Your task to perform on an android device: Add "acer predator" to the cart on bestbuy Image 0: 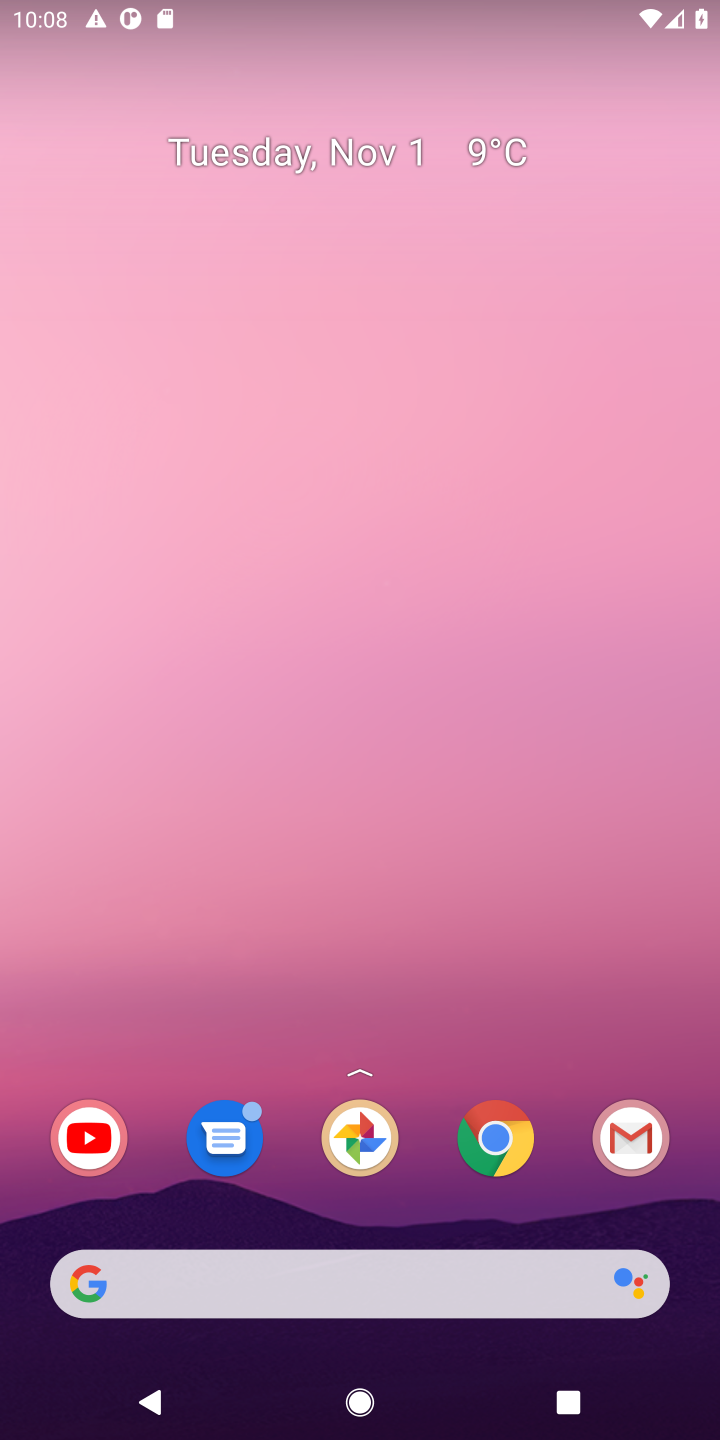
Step 0: press home button
Your task to perform on an android device: Add "acer predator" to the cart on bestbuy Image 1: 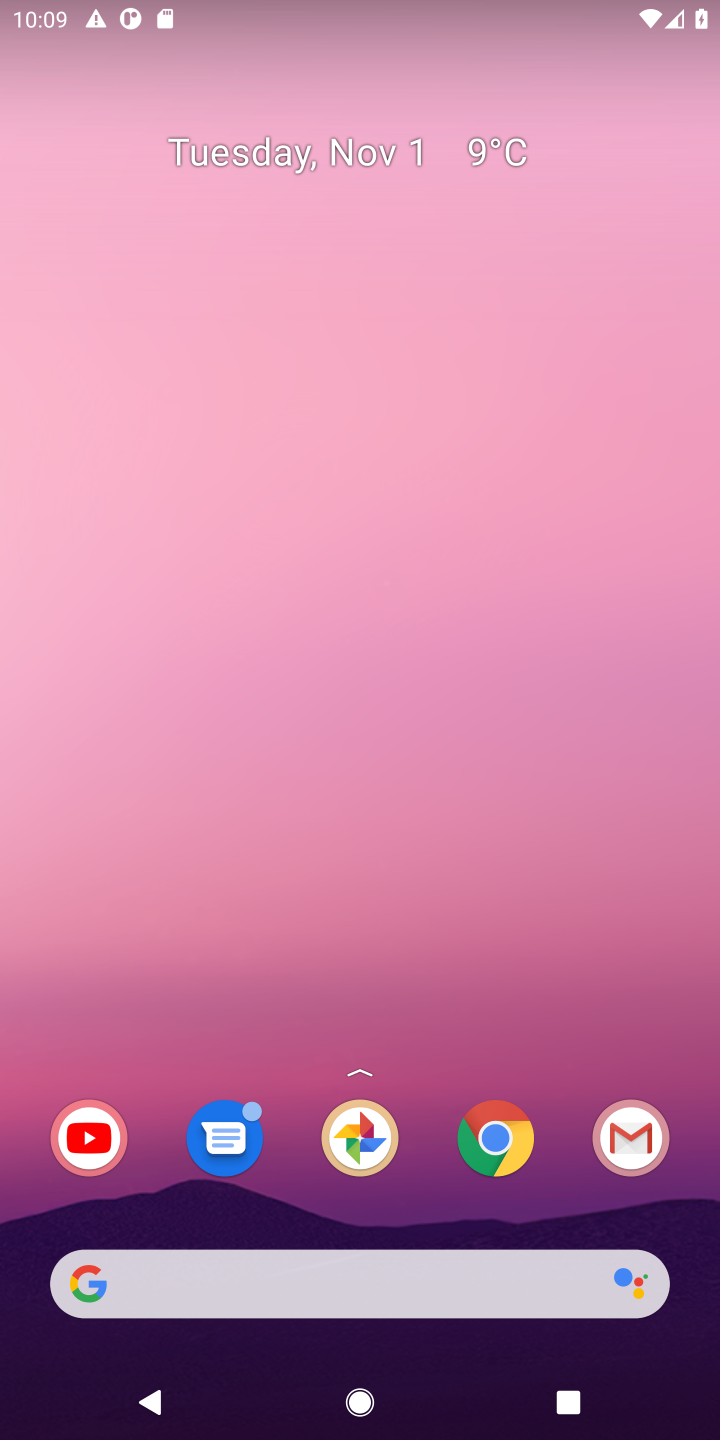
Step 1: drag from (405, 1081) to (490, 148)
Your task to perform on an android device: Add "acer predator" to the cart on bestbuy Image 2: 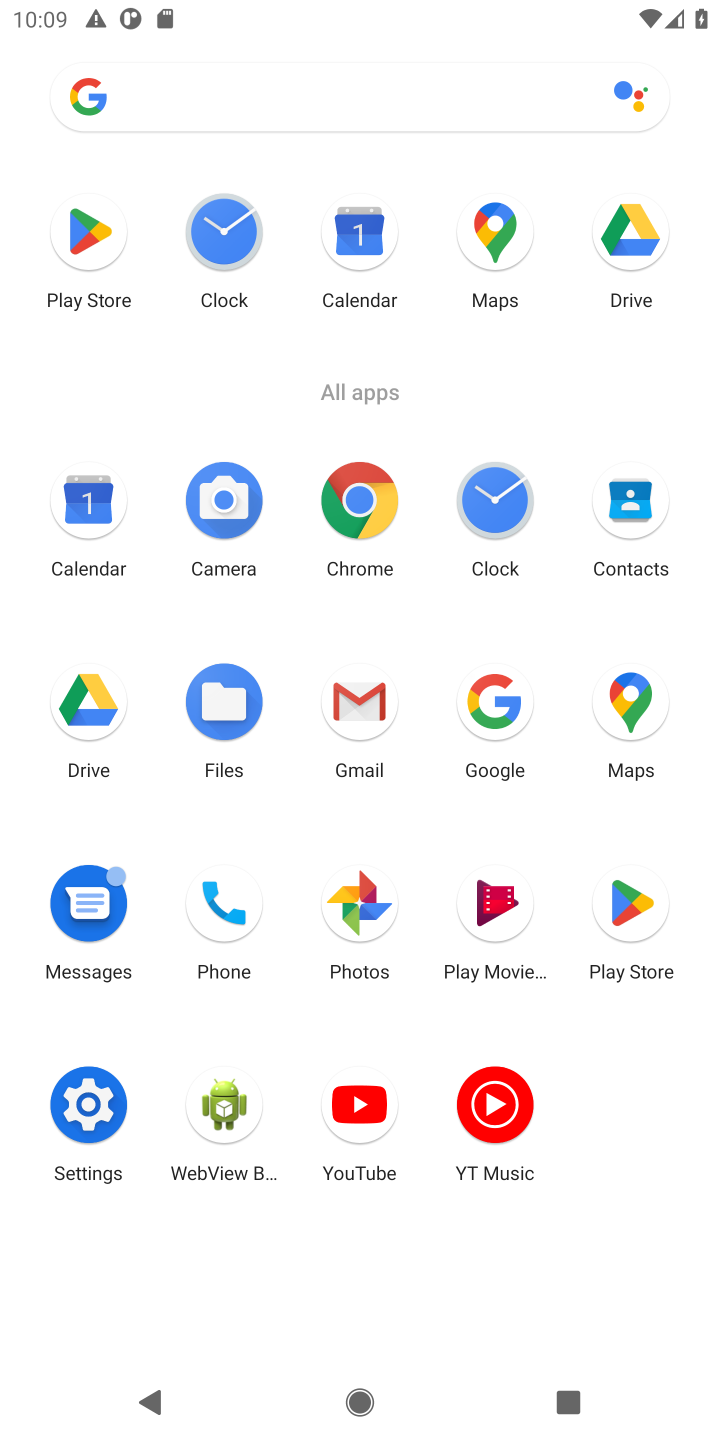
Step 2: click (368, 491)
Your task to perform on an android device: Add "acer predator" to the cart on bestbuy Image 3: 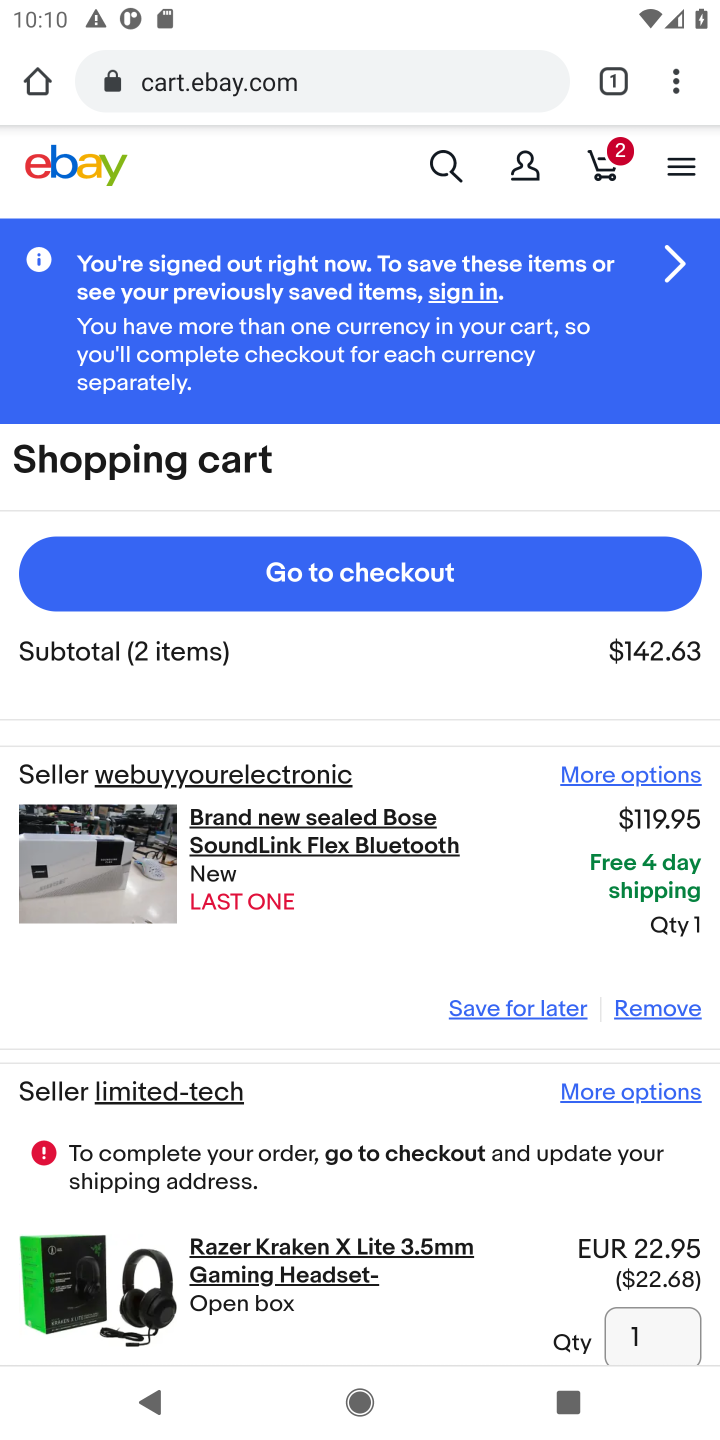
Step 3: click (226, 78)
Your task to perform on an android device: Add "acer predator" to the cart on bestbuy Image 4: 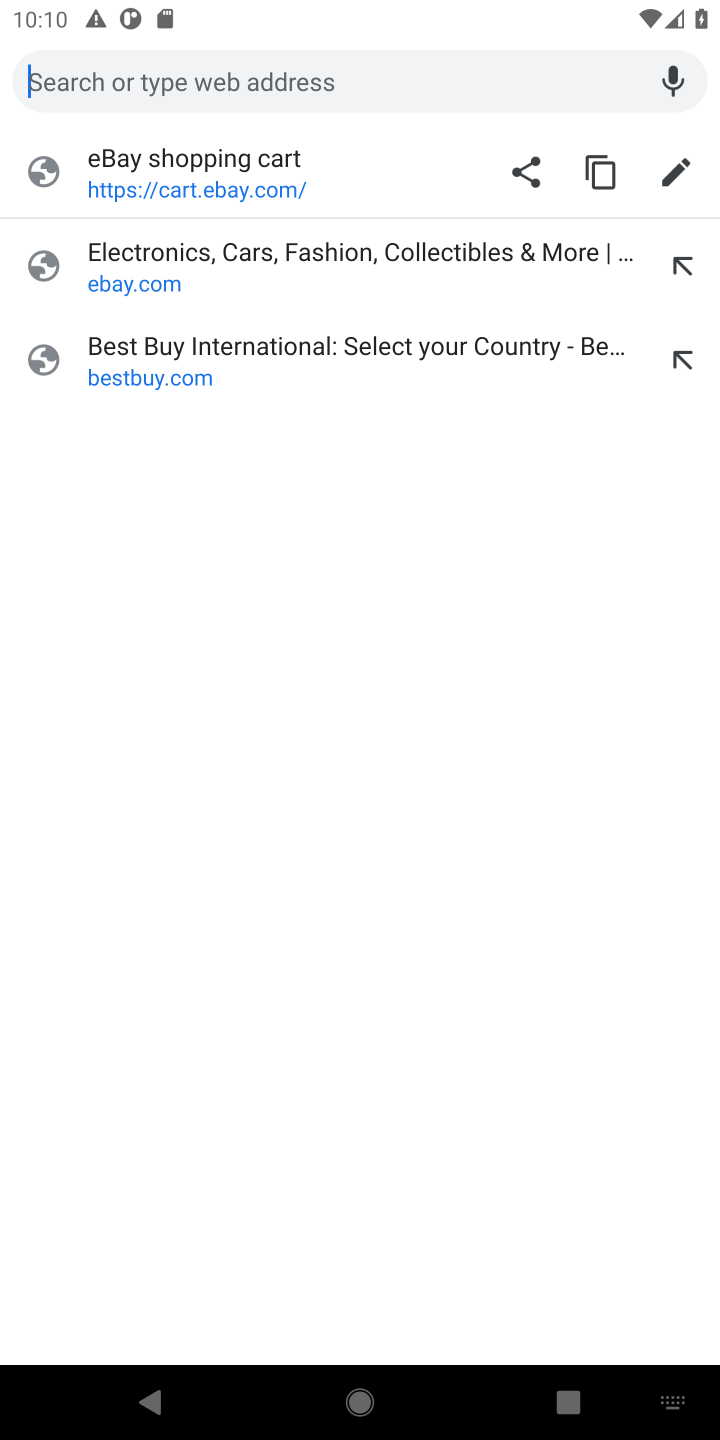
Step 4: type "bestbuy"
Your task to perform on an android device: Add "acer predator" to the cart on bestbuy Image 5: 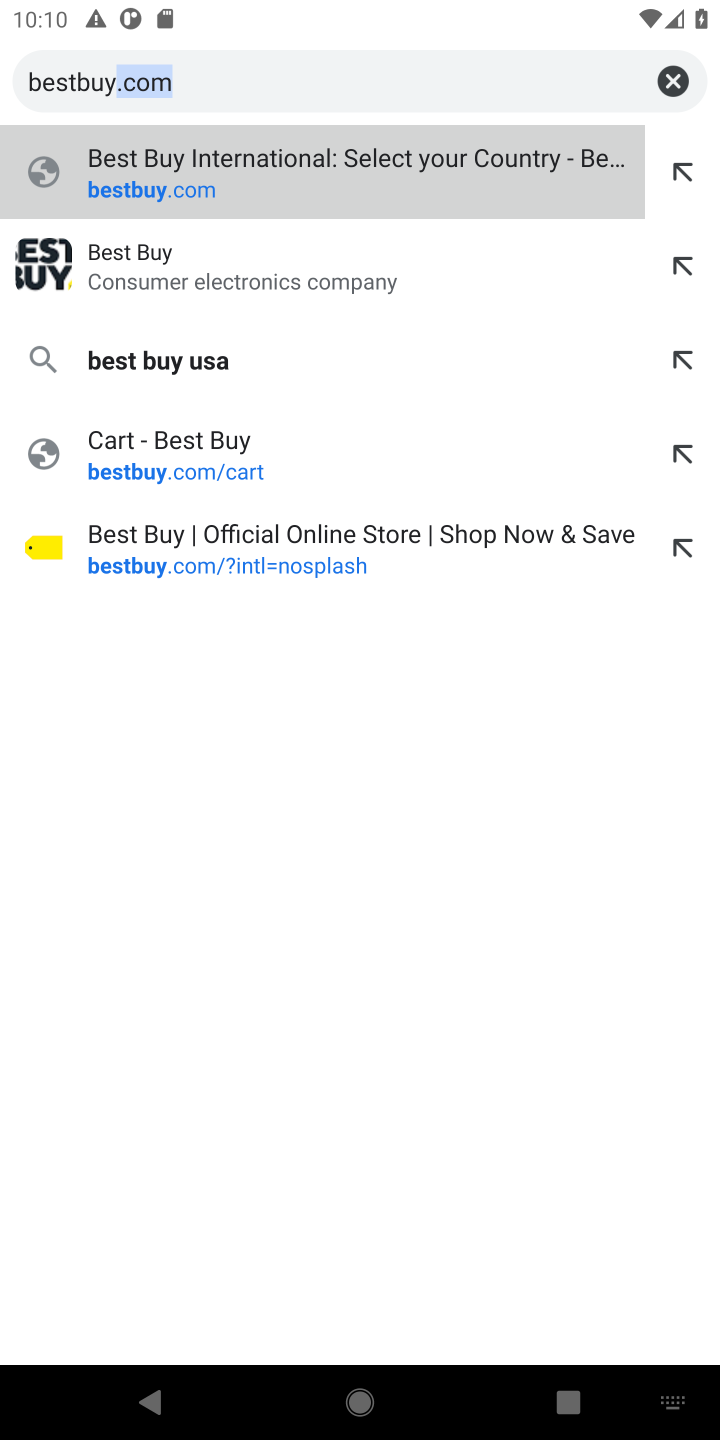
Step 5: click (215, 182)
Your task to perform on an android device: Add "acer predator" to the cart on bestbuy Image 6: 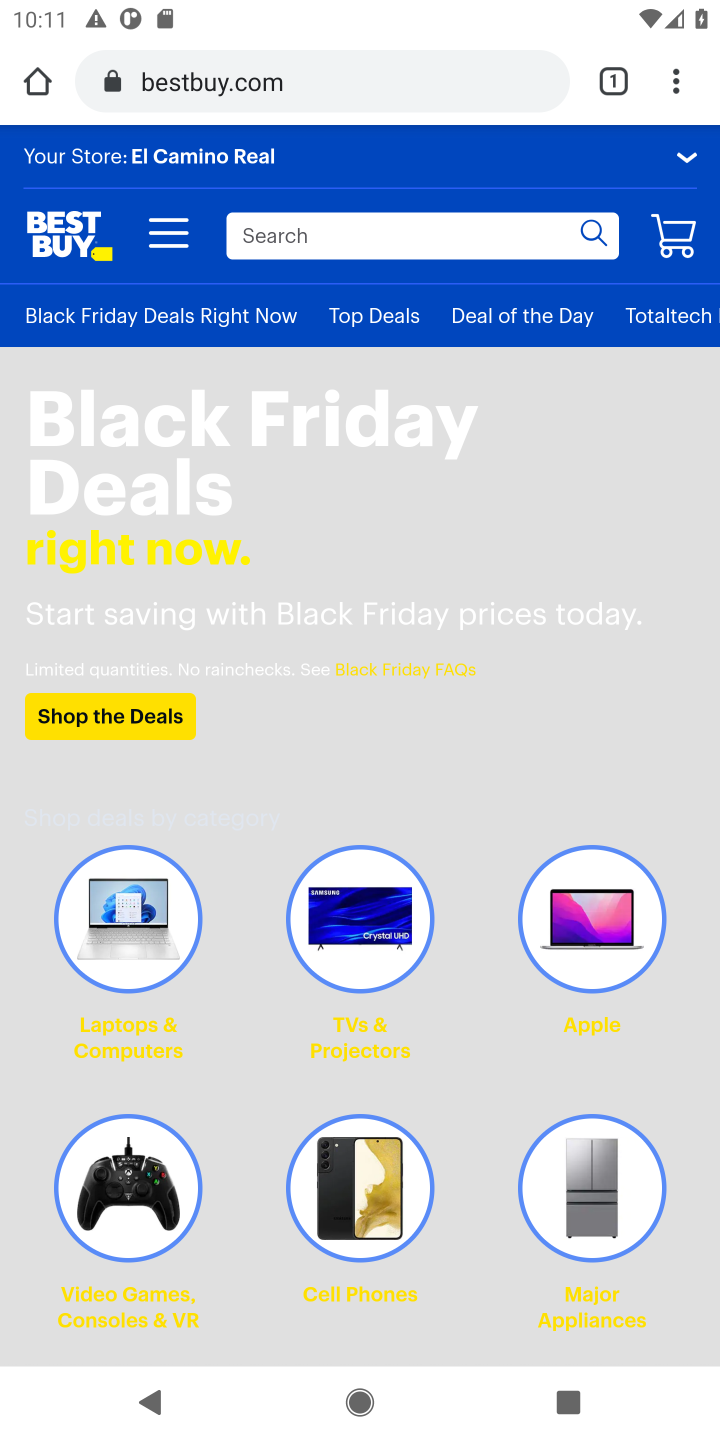
Step 6: click (307, 237)
Your task to perform on an android device: Add "acer predator" to the cart on bestbuy Image 7: 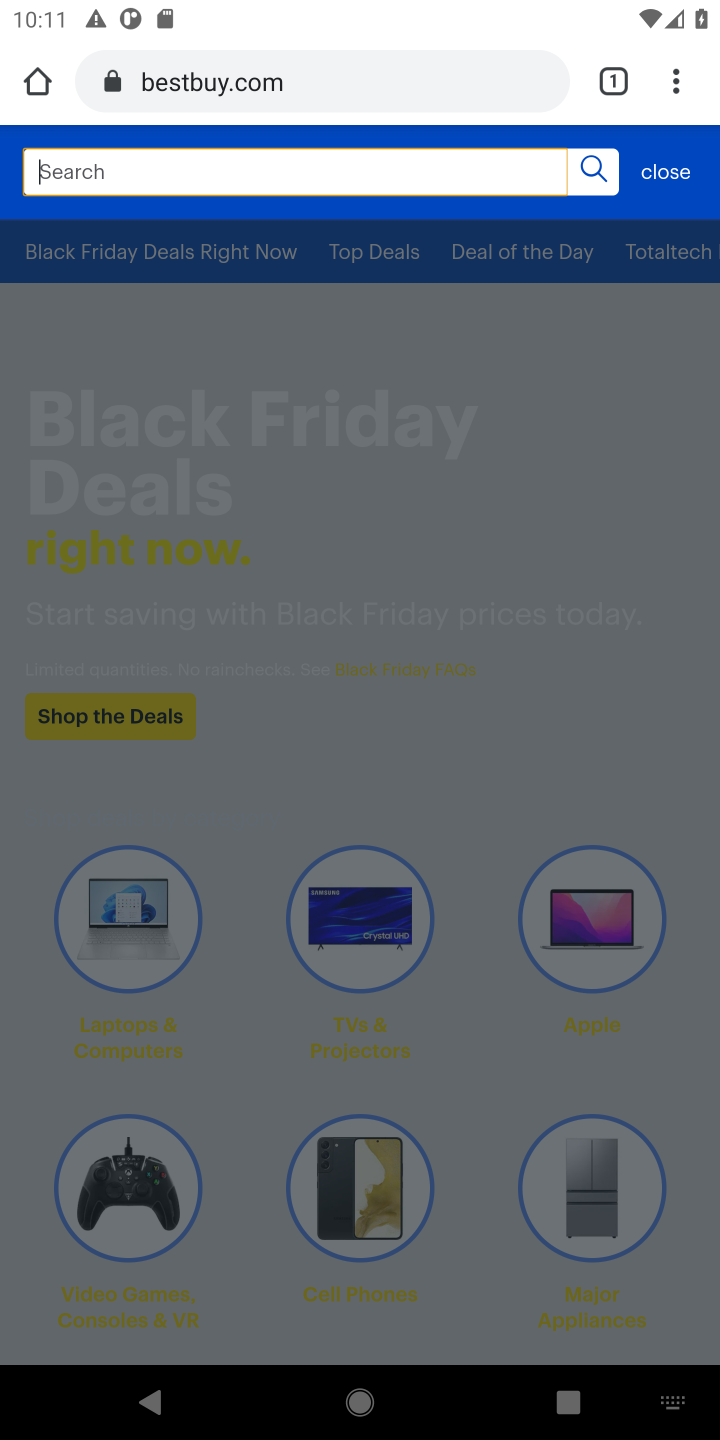
Step 7: type "acer predator"
Your task to perform on an android device: Add "acer predator" to the cart on bestbuy Image 8: 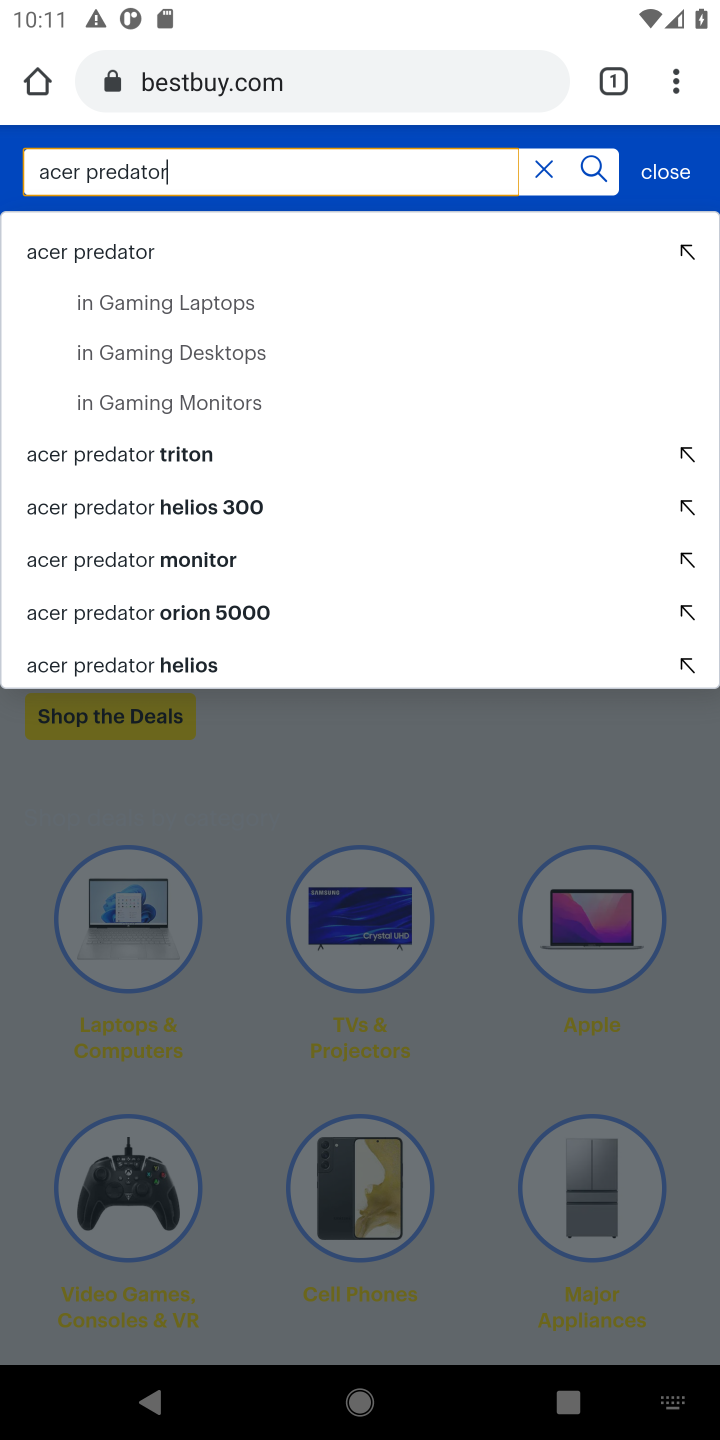
Step 8: click (148, 272)
Your task to perform on an android device: Add "acer predator" to the cart on bestbuy Image 9: 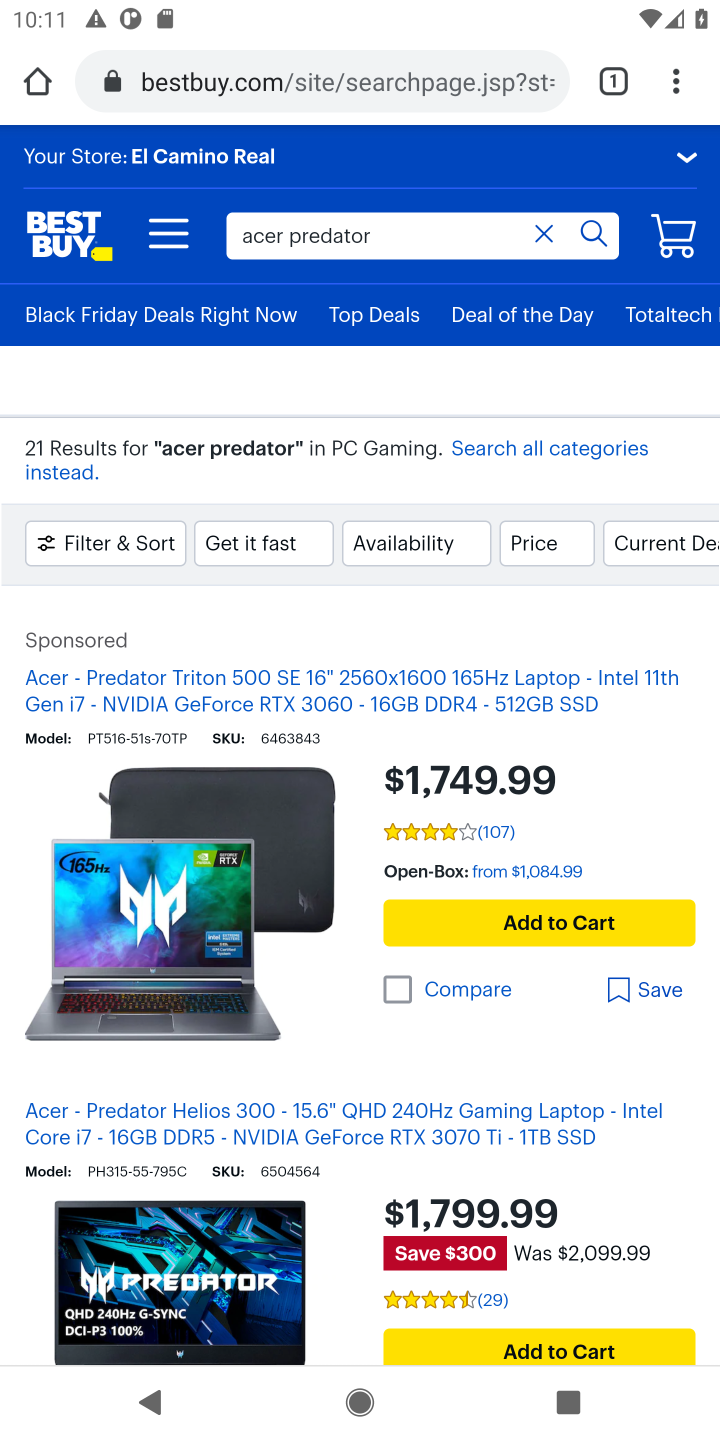
Step 9: click (264, 704)
Your task to perform on an android device: Add "acer predator" to the cart on bestbuy Image 10: 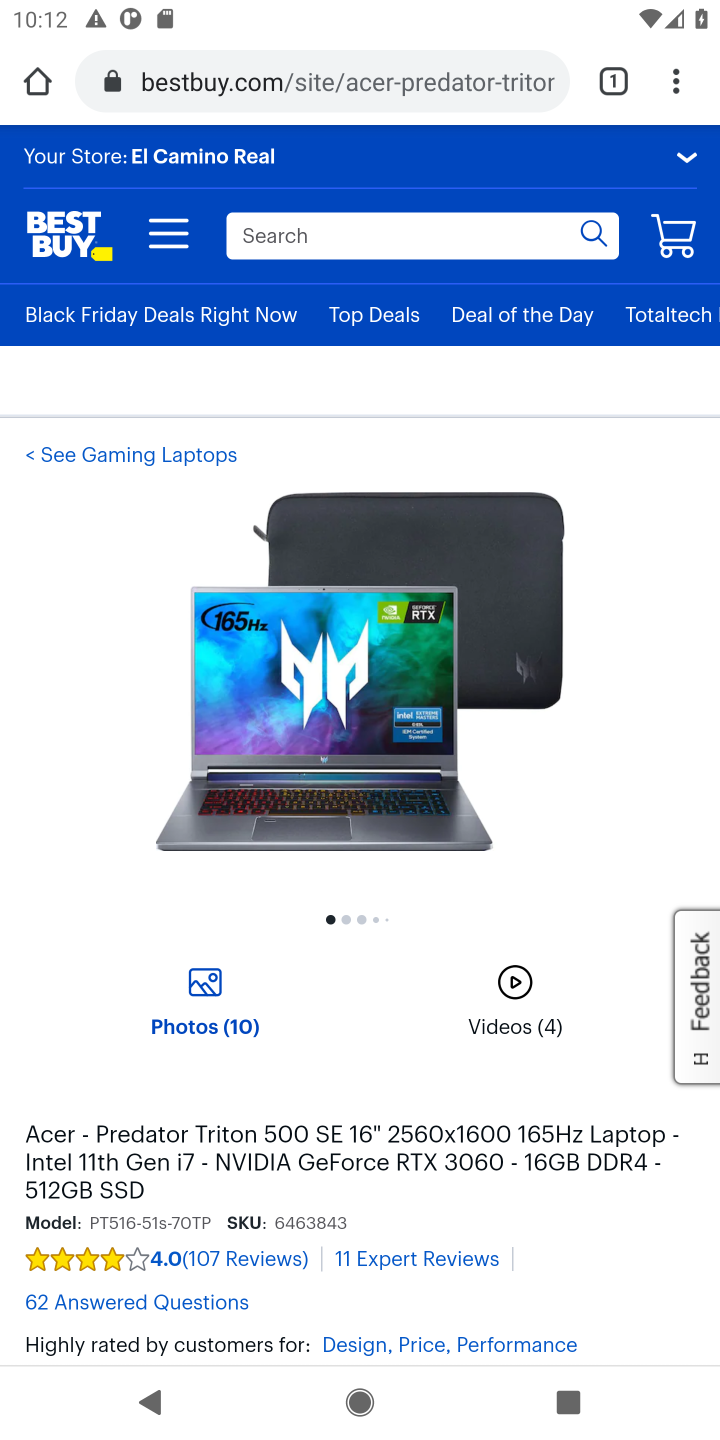
Step 10: drag from (335, 1213) to (437, 3)
Your task to perform on an android device: Add "acer predator" to the cart on bestbuy Image 11: 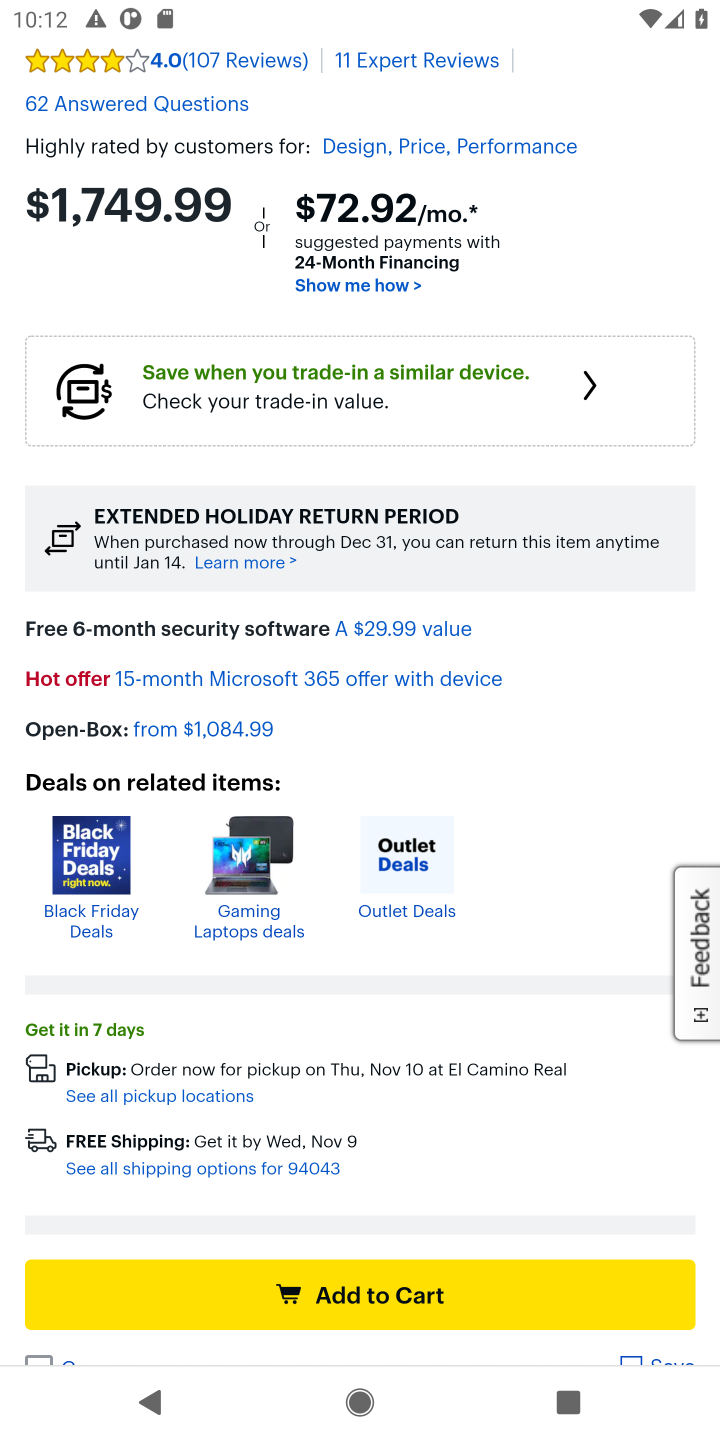
Step 11: click (379, 1299)
Your task to perform on an android device: Add "acer predator" to the cart on bestbuy Image 12: 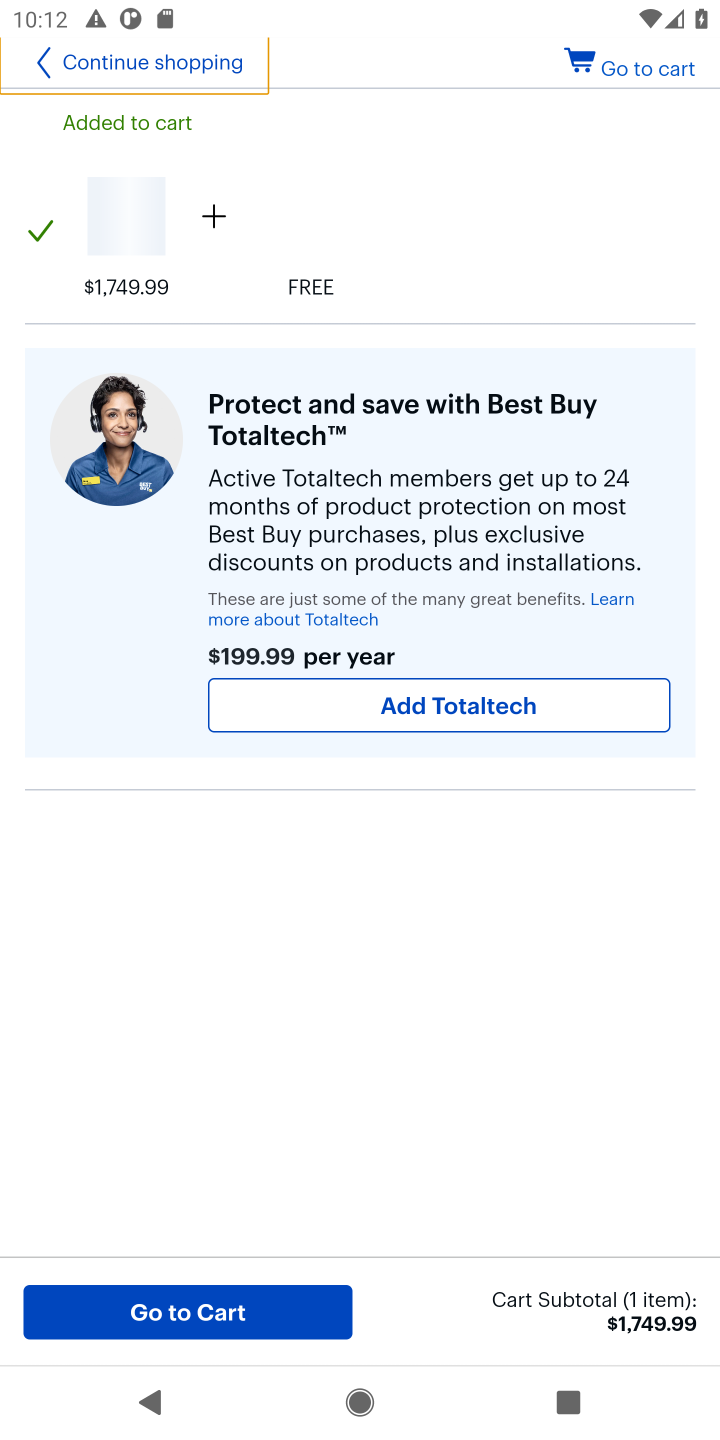
Step 12: click (194, 1313)
Your task to perform on an android device: Add "acer predator" to the cart on bestbuy Image 13: 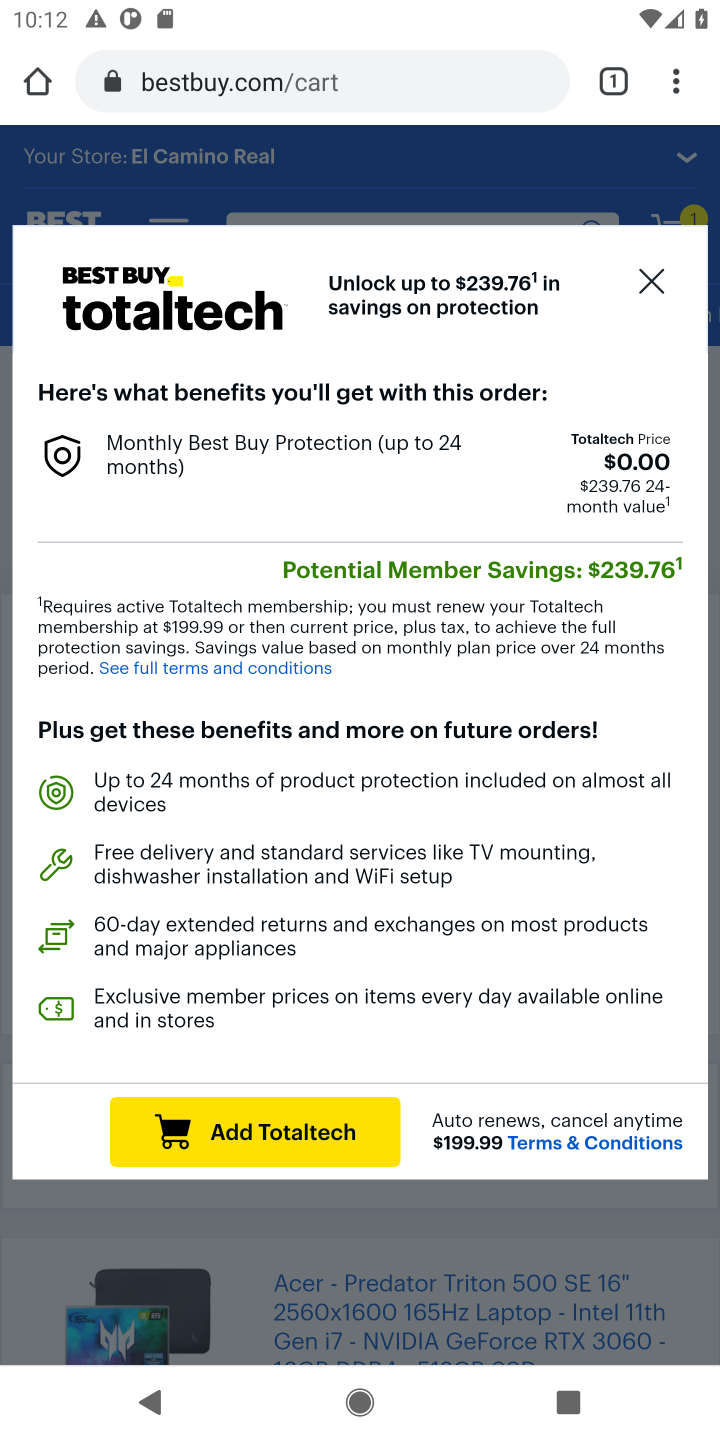
Step 13: click (272, 1143)
Your task to perform on an android device: Add "acer predator" to the cart on bestbuy Image 14: 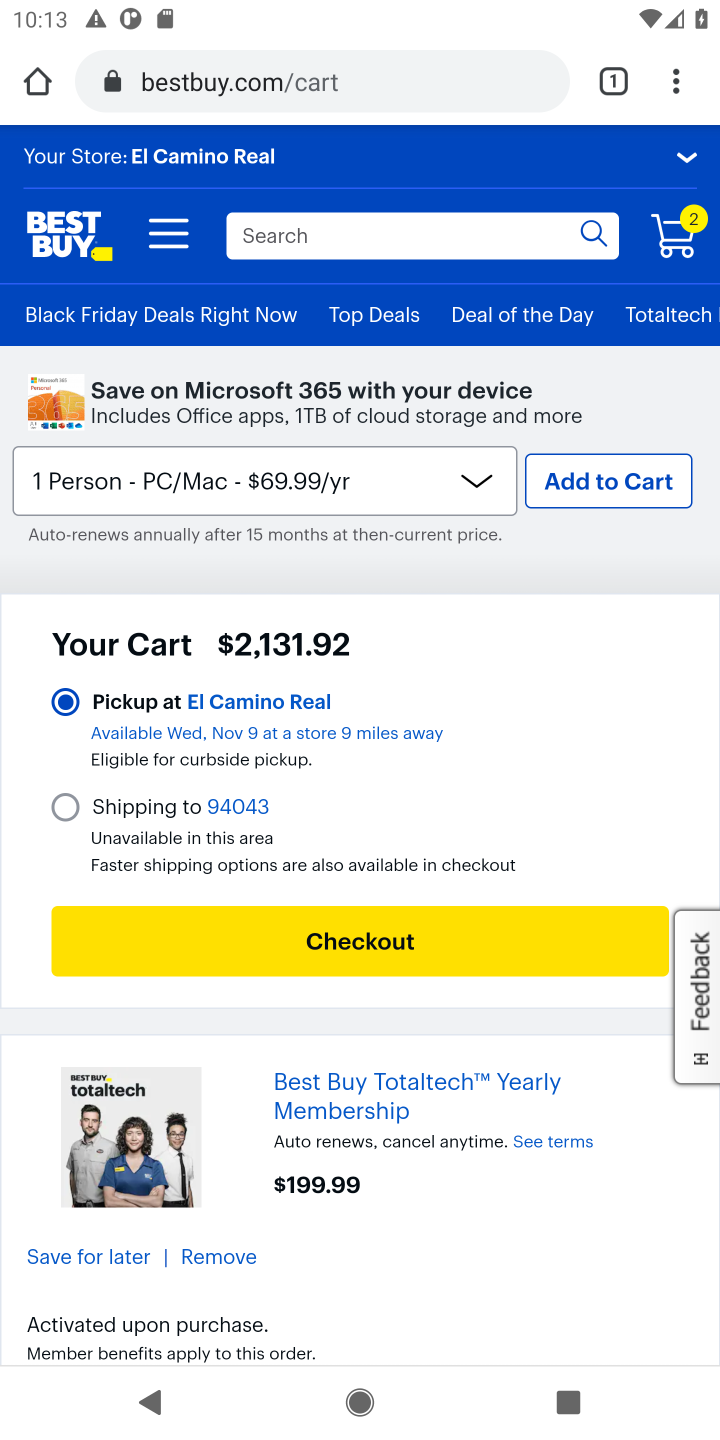
Step 14: task complete